Your task to perform on an android device: Open Google Chrome and click the shortcut for Amazon.com Image 0: 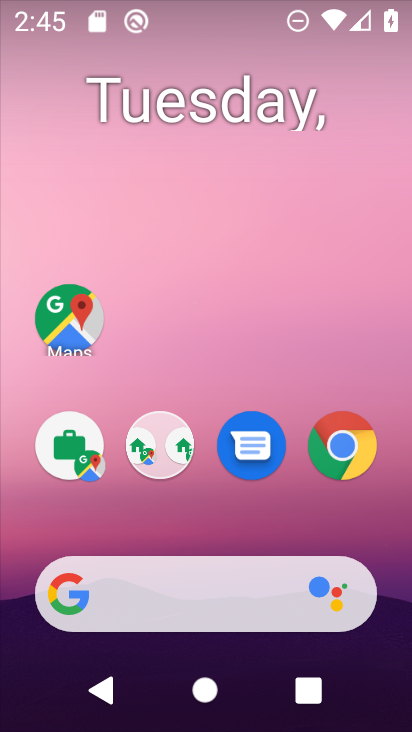
Step 0: click (352, 453)
Your task to perform on an android device: Open Google Chrome and click the shortcut for Amazon.com Image 1: 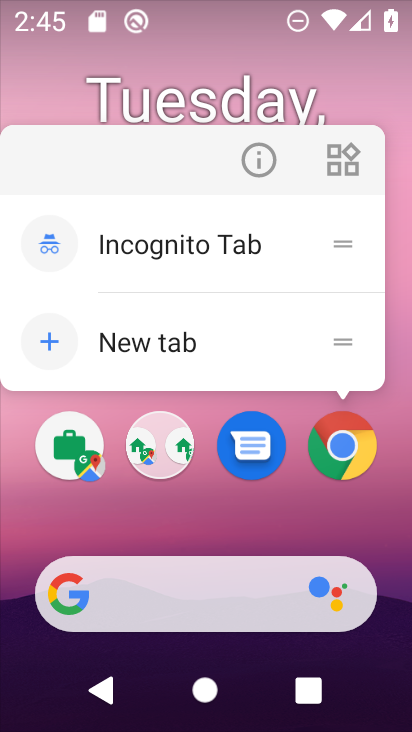
Step 1: click (269, 177)
Your task to perform on an android device: Open Google Chrome and click the shortcut for Amazon.com Image 2: 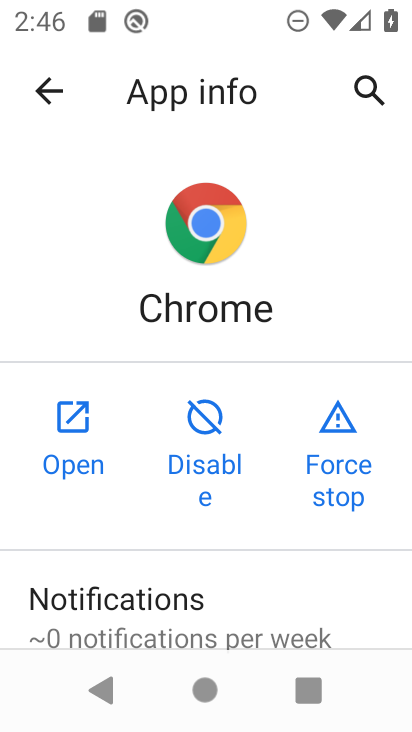
Step 2: click (83, 439)
Your task to perform on an android device: Open Google Chrome and click the shortcut for Amazon.com Image 3: 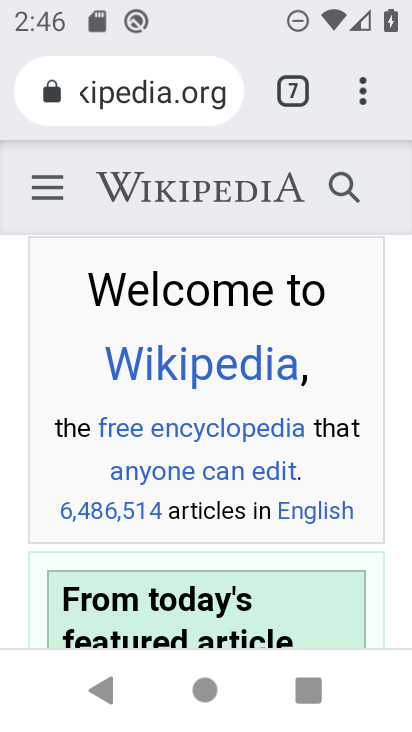
Step 3: click (298, 91)
Your task to perform on an android device: Open Google Chrome and click the shortcut for Amazon.com Image 4: 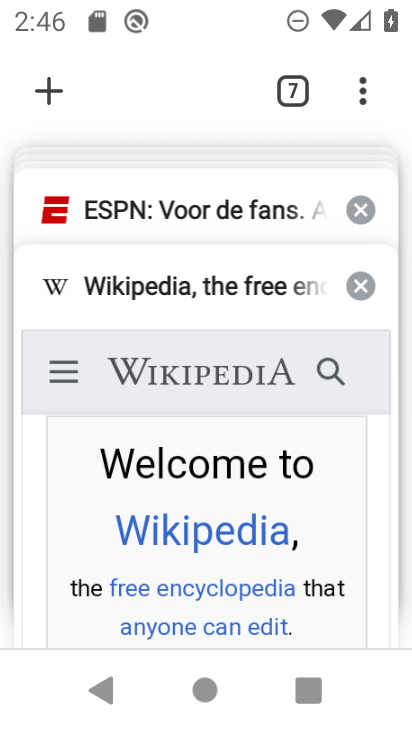
Step 4: click (64, 95)
Your task to perform on an android device: Open Google Chrome and click the shortcut for Amazon.com Image 5: 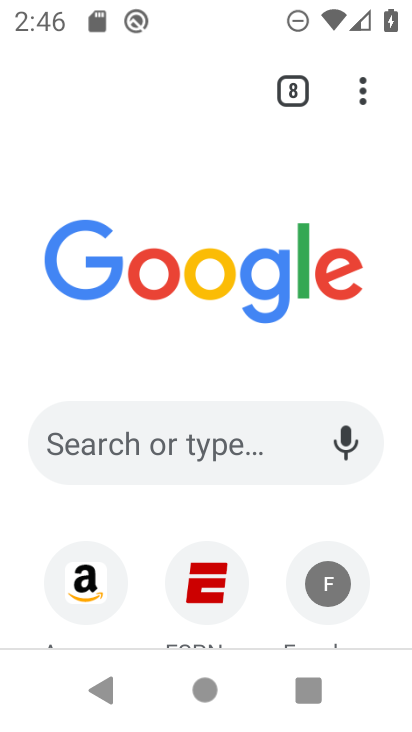
Step 5: click (84, 592)
Your task to perform on an android device: Open Google Chrome and click the shortcut for Amazon.com Image 6: 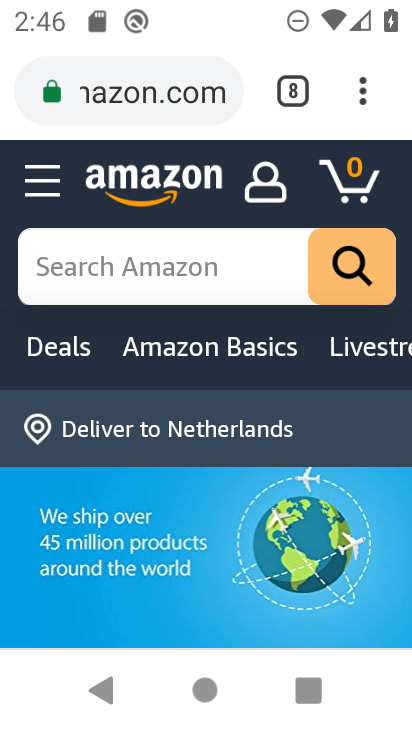
Step 6: task complete